Your task to perform on an android device: turn on wifi Image 0: 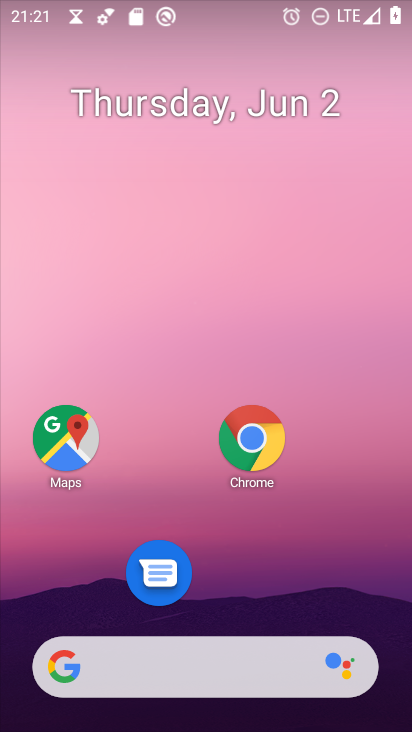
Step 0: press home button
Your task to perform on an android device: turn on wifi Image 1: 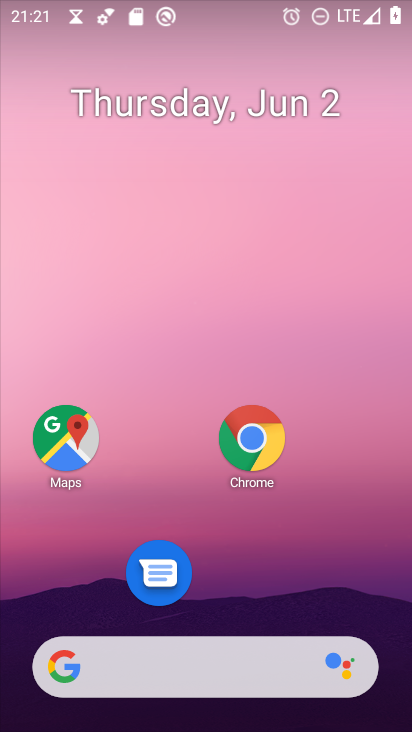
Step 1: drag from (201, 682) to (341, 50)
Your task to perform on an android device: turn on wifi Image 2: 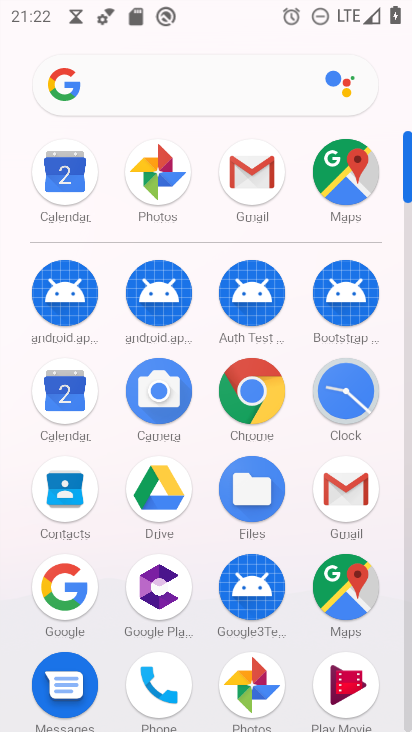
Step 2: drag from (199, 613) to (286, 286)
Your task to perform on an android device: turn on wifi Image 3: 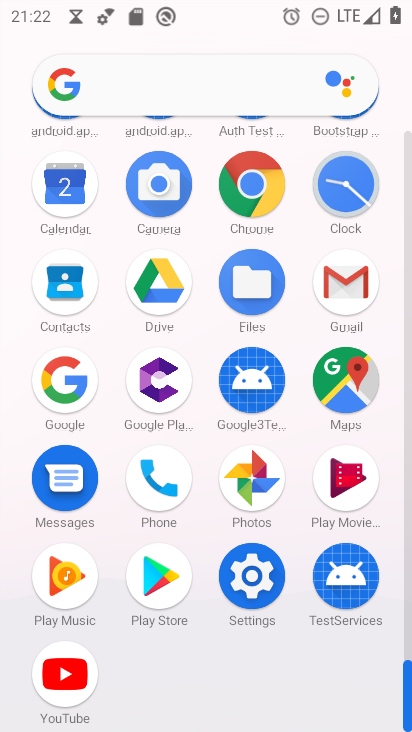
Step 3: click (261, 569)
Your task to perform on an android device: turn on wifi Image 4: 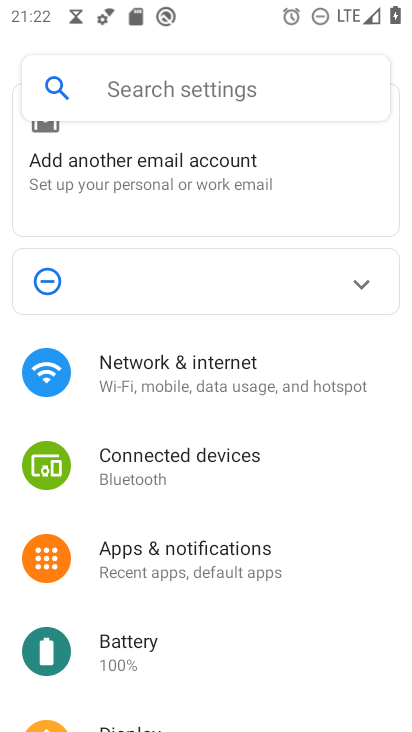
Step 4: click (235, 380)
Your task to perform on an android device: turn on wifi Image 5: 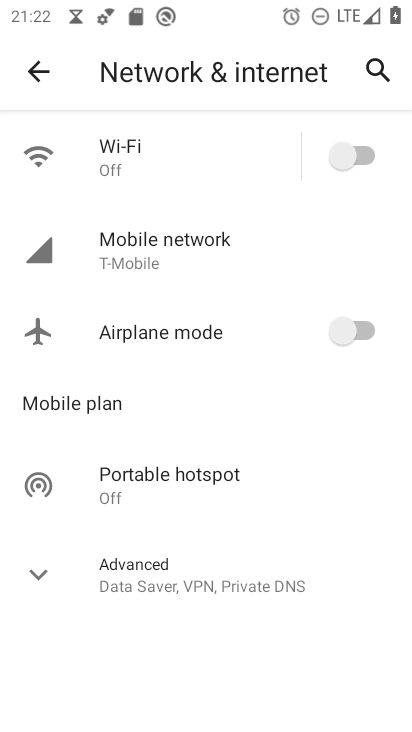
Step 5: click (371, 153)
Your task to perform on an android device: turn on wifi Image 6: 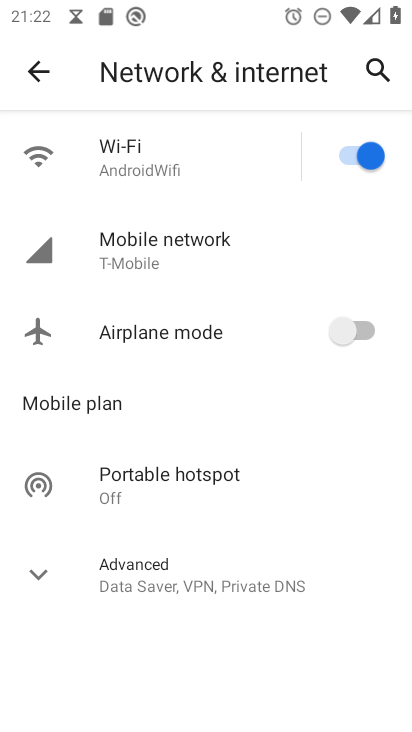
Step 6: task complete